Your task to perform on an android device: turn on the 24-hour format for clock Image 0: 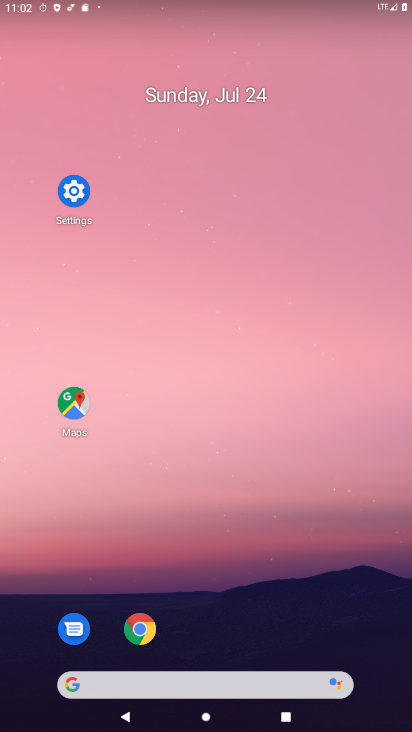
Step 0: drag from (179, 482) to (156, 205)
Your task to perform on an android device: turn on the 24-hour format for clock Image 1: 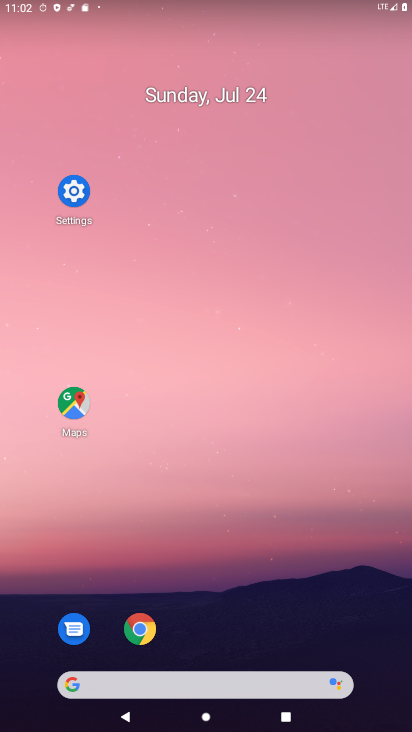
Step 1: click (243, 121)
Your task to perform on an android device: turn on the 24-hour format for clock Image 2: 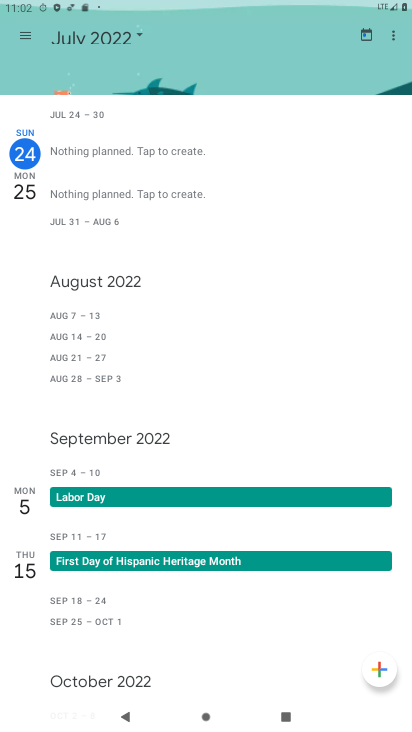
Step 2: drag from (276, 569) to (202, 67)
Your task to perform on an android device: turn on the 24-hour format for clock Image 3: 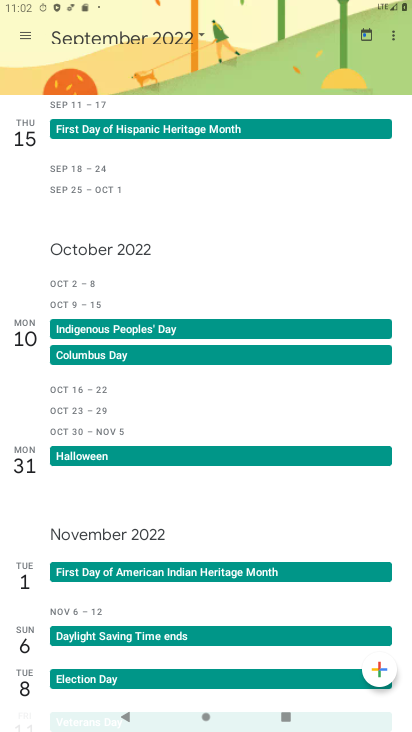
Step 3: press back button
Your task to perform on an android device: turn on the 24-hour format for clock Image 4: 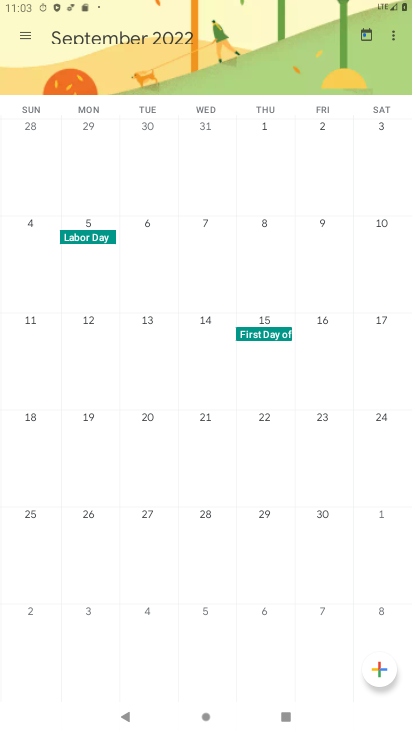
Step 4: press back button
Your task to perform on an android device: turn on the 24-hour format for clock Image 5: 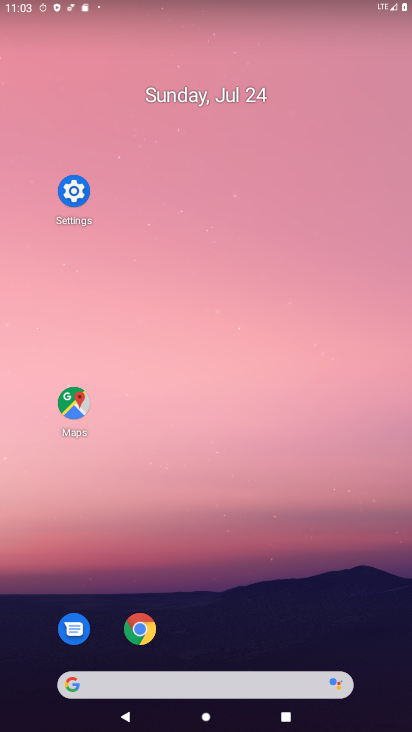
Step 5: drag from (233, 670) to (222, 209)
Your task to perform on an android device: turn on the 24-hour format for clock Image 6: 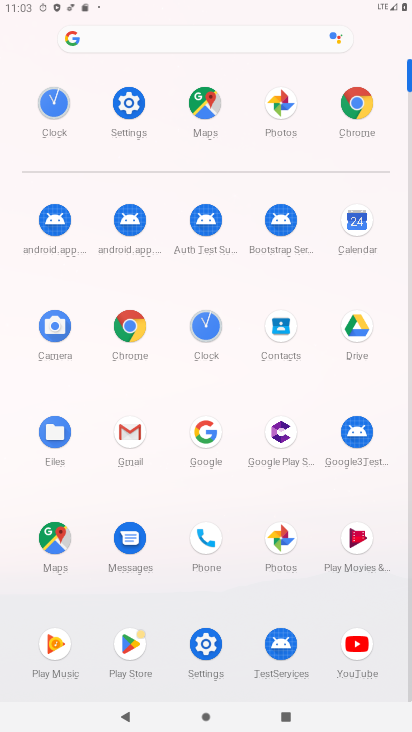
Step 6: click (212, 319)
Your task to perform on an android device: turn on the 24-hour format for clock Image 7: 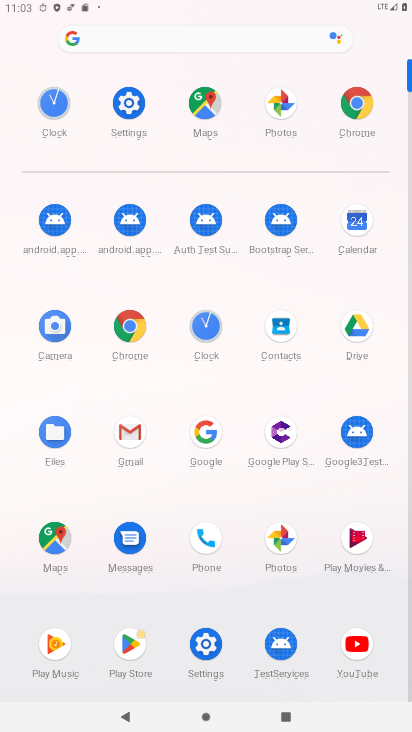
Step 7: click (212, 319)
Your task to perform on an android device: turn on the 24-hour format for clock Image 8: 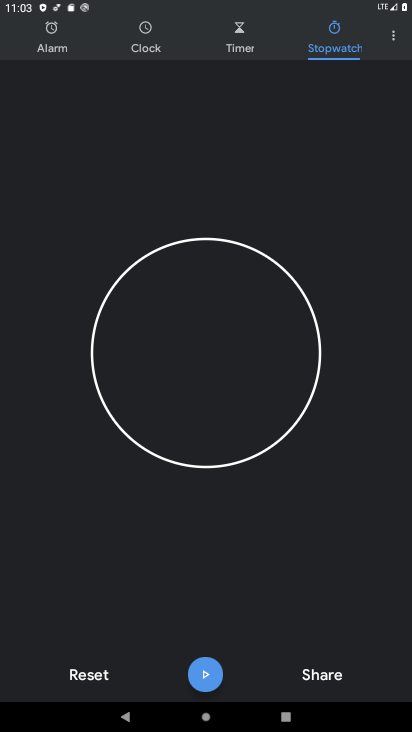
Step 8: click (395, 37)
Your task to perform on an android device: turn on the 24-hour format for clock Image 9: 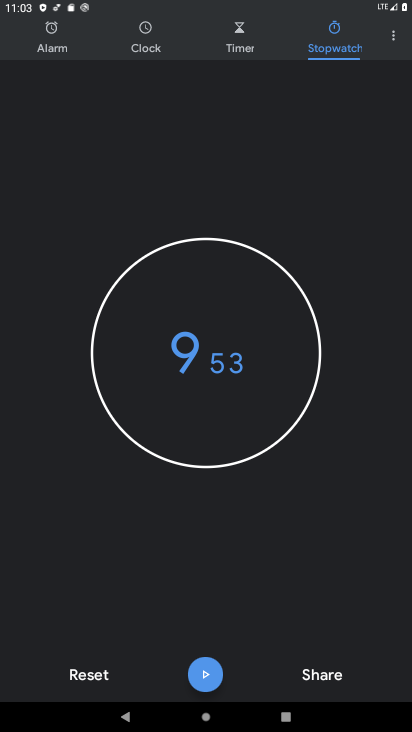
Step 9: click (395, 37)
Your task to perform on an android device: turn on the 24-hour format for clock Image 10: 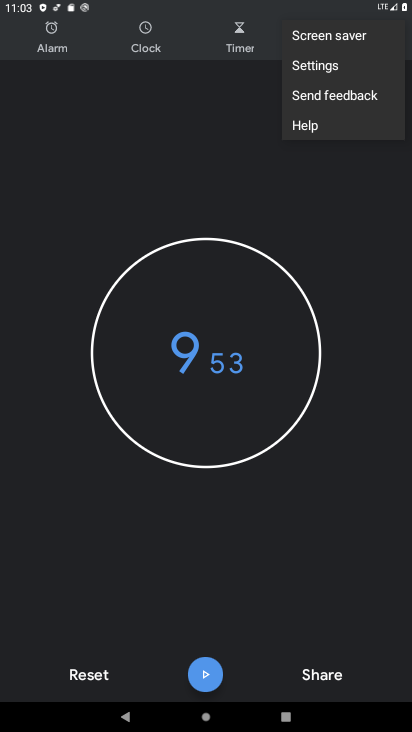
Step 10: click (335, 59)
Your task to perform on an android device: turn on the 24-hour format for clock Image 11: 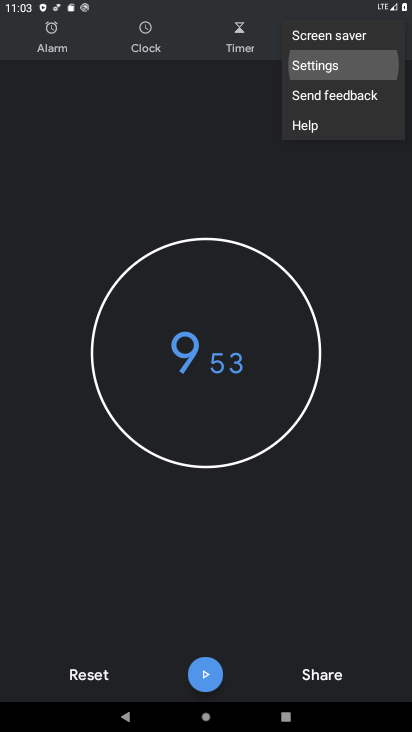
Step 11: click (331, 64)
Your task to perform on an android device: turn on the 24-hour format for clock Image 12: 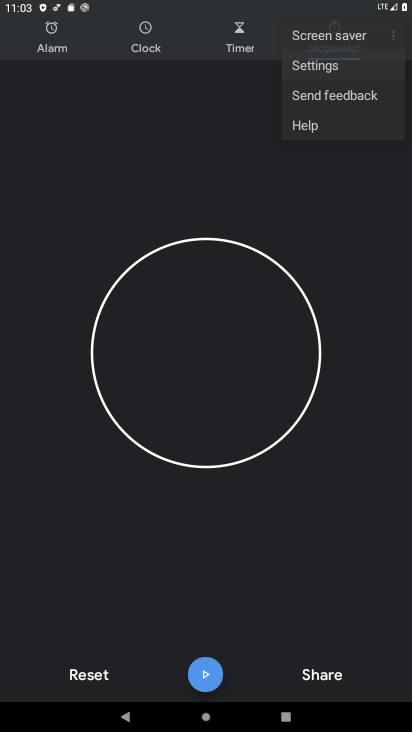
Step 12: click (341, 66)
Your task to perform on an android device: turn on the 24-hour format for clock Image 13: 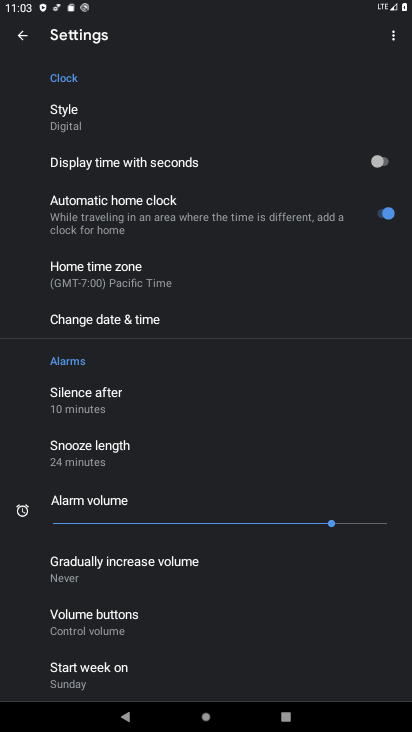
Step 13: click (102, 322)
Your task to perform on an android device: turn on the 24-hour format for clock Image 14: 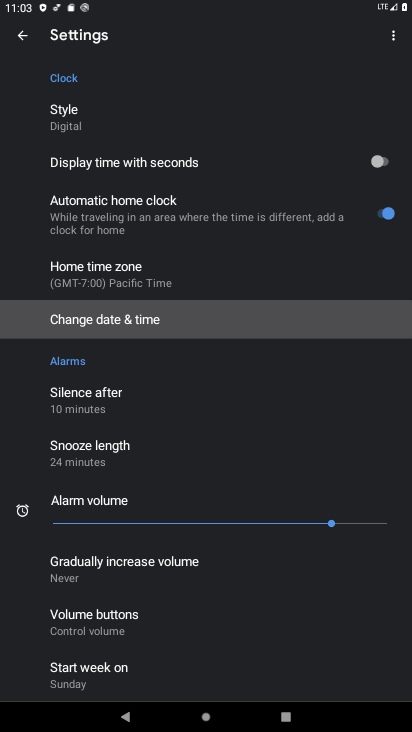
Step 14: click (101, 322)
Your task to perform on an android device: turn on the 24-hour format for clock Image 15: 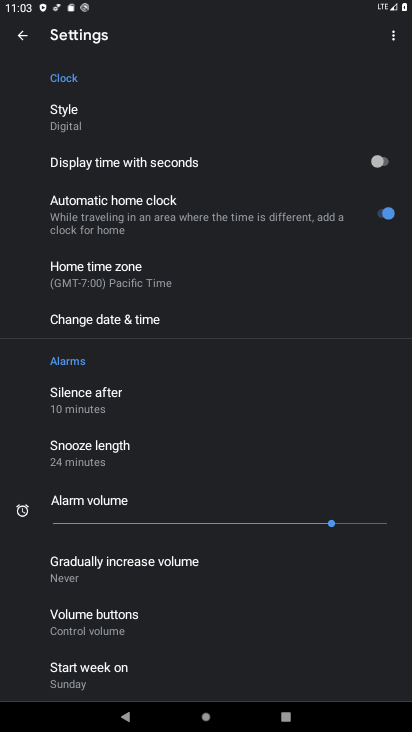
Step 15: click (96, 321)
Your task to perform on an android device: turn on the 24-hour format for clock Image 16: 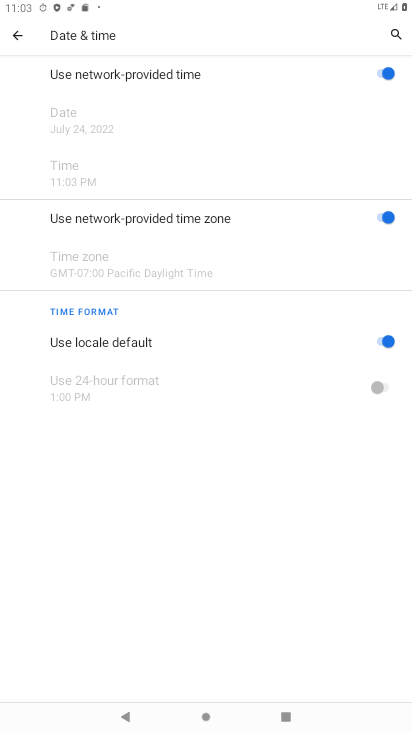
Step 16: click (382, 382)
Your task to perform on an android device: turn on the 24-hour format for clock Image 17: 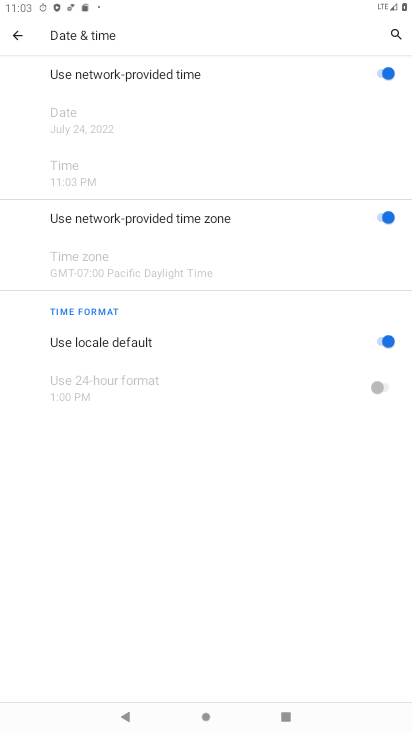
Step 17: click (387, 339)
Your task to perform on an android device: turn on the 24-hour format for clock Image 18: 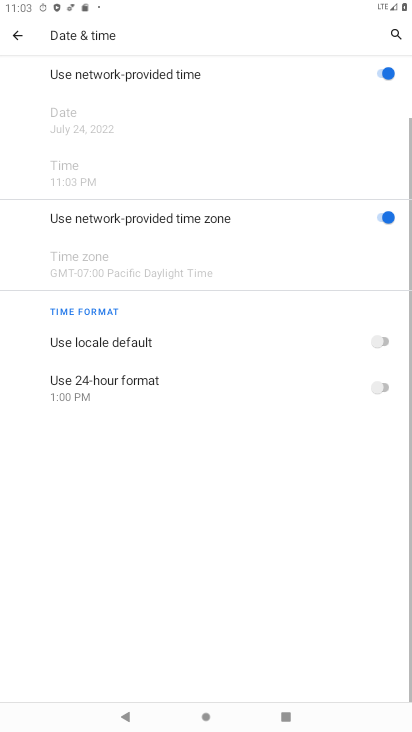
Step 18: click (385, 383)
Your task to perform on an android device: turn on the 24-hour format for clock Image 19: 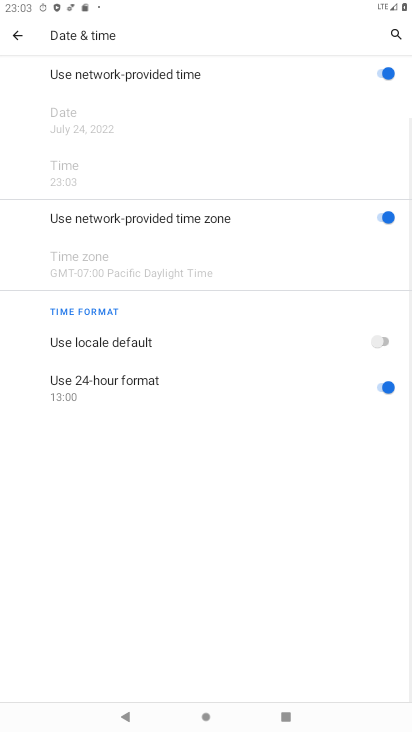
Step 19: task complete